Your task to perform on an android device: Open location settings Image 0: 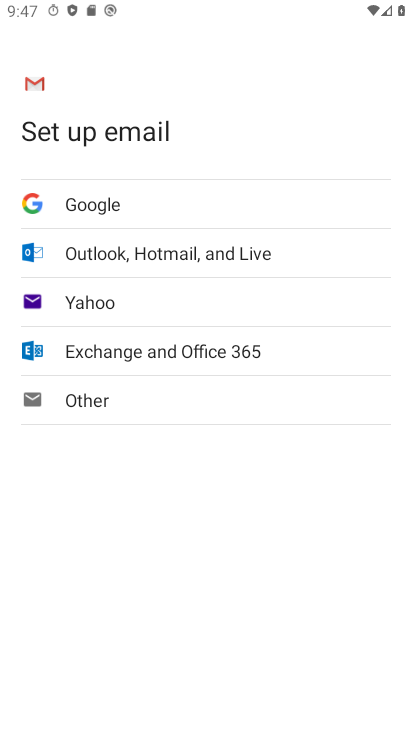
Step 0: press back button
Your task to perform on an android device: Open location settings Image 1: 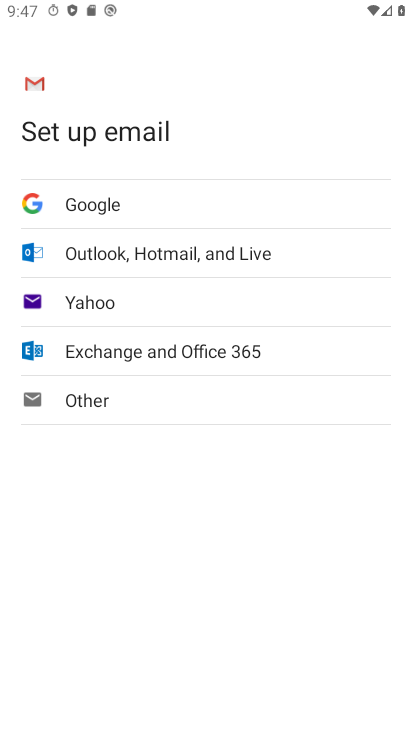
Step 1: press back button
Your task to perform on an android device: Open location settings Image 2: 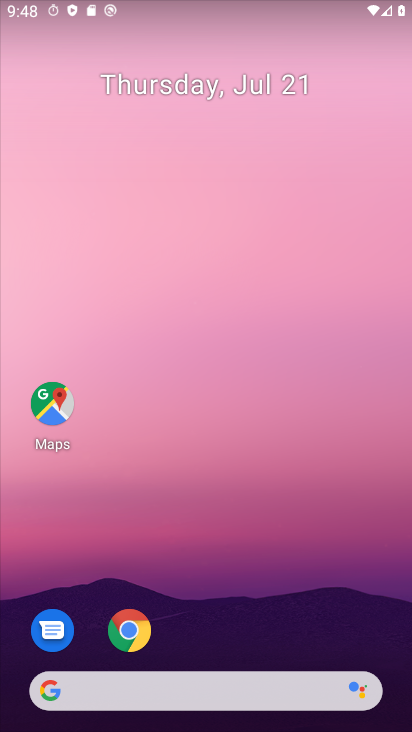
Step 2: press back button
Your task to perform on an android device: Open location settings Image 3: 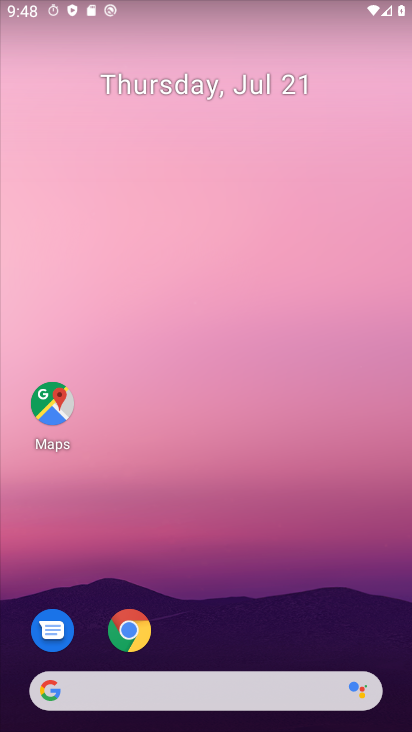
Step 3: click (162, 217)
Your task to perform on an android device: Open location settings Image 4: 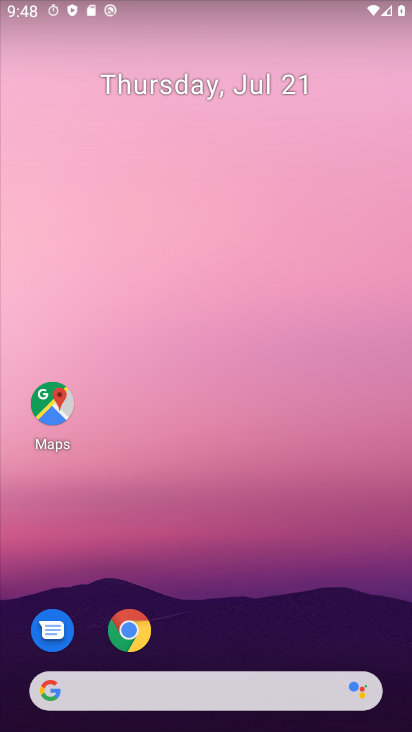
Step 4: drag from (246, 515) to (198, 184)
Your task to perform on an android device: Open location settings Image 5: 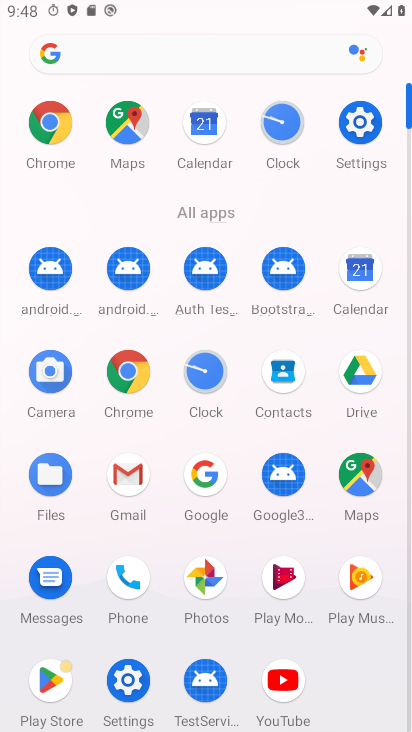
Step 5: click (351, 134)
Your task to perform on an android device: Open location settings Image 6: 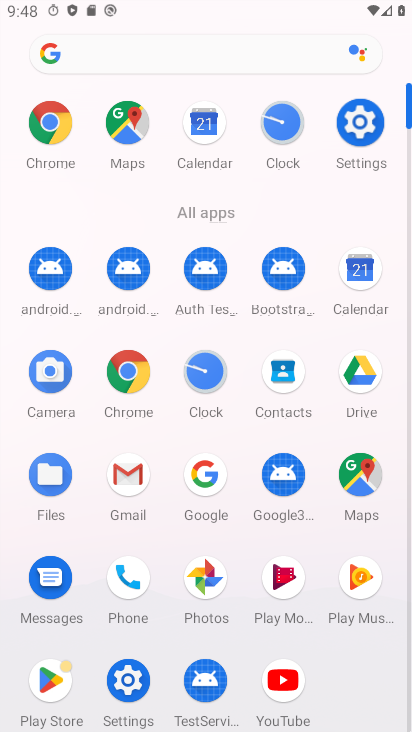
Step 6: click (377, 131)
Your task to perform on an android device: Open location settings Image 7: 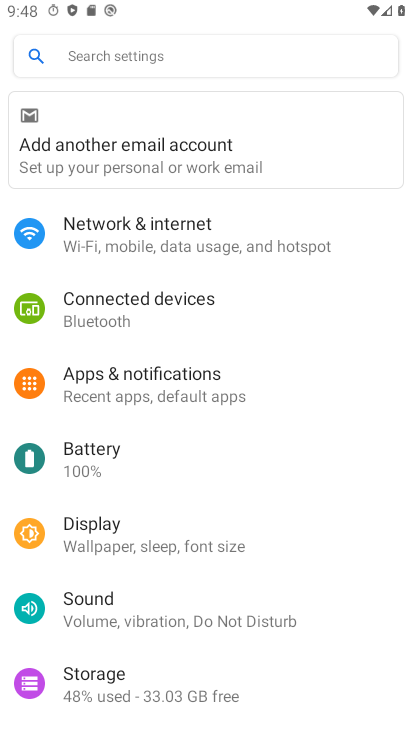
Step 7: drag from (147, 607) to (188, 145)
Your task to perform on an android device: Open location settings Image 8: 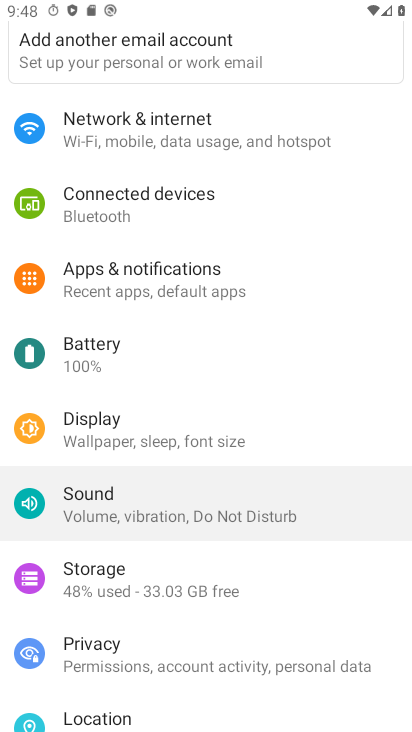
Step 8: drag from (126, 556) to (109, 143)
Your task to perform on an android device: Open location settings Image 9: 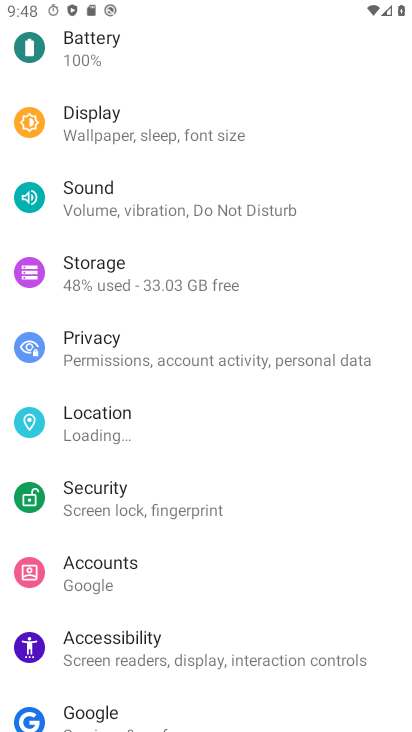
Step 9: drag from (151, 556) to (0, 76)
Your task to perform on an android device: Open location settings Image 10: 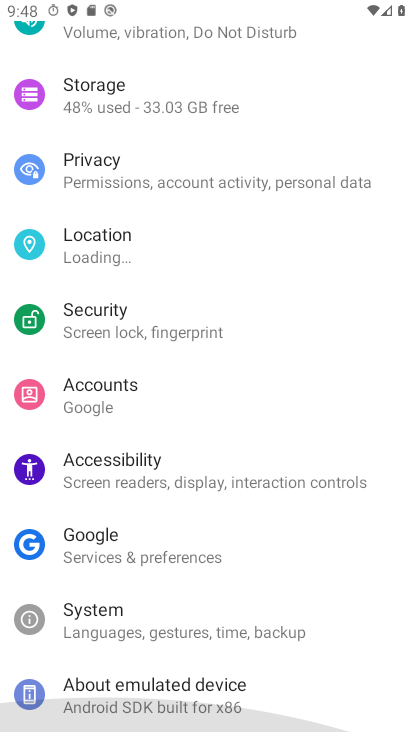
Step 10: drag from (185, 505) to (132, 203)
Your task to perform on an android device: Open location settings Image 11: 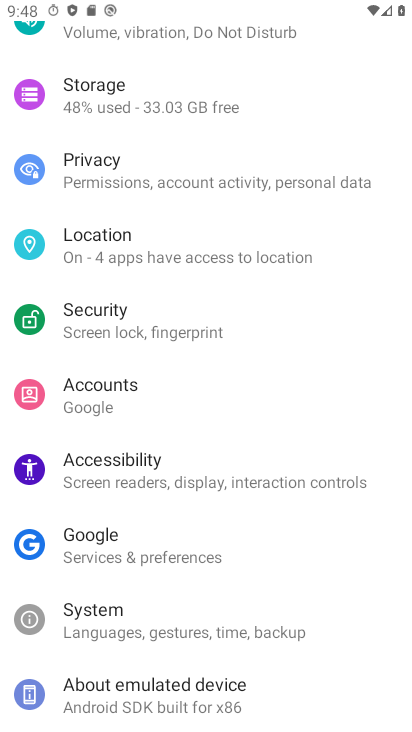
Step 11: click (116, 251)
Your task to perform on an android device: Open location settings Image 12: 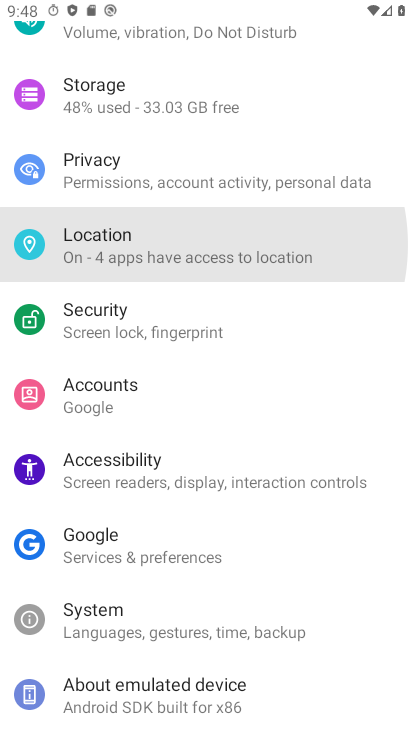
Step 12: click (116, 251)
Your task to perform on an android device: Open location settings Image 13: 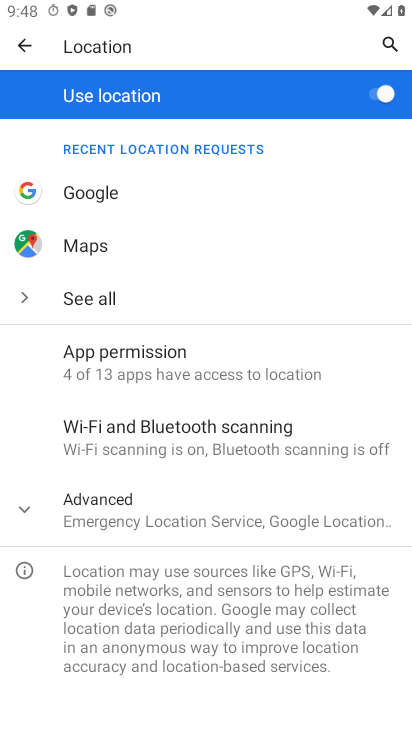
Step 13: task complete